Your task to perform on an android device: remove spam from my inbox in the gmail app Image 0: 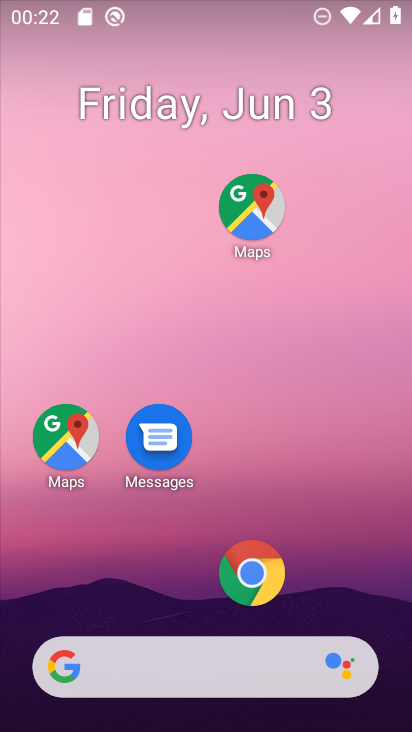
Step 0: drag from (308, 601) to (300, 160)
Your task to perform on an android device: remove spam from my inbox in the gmail app Image 1: 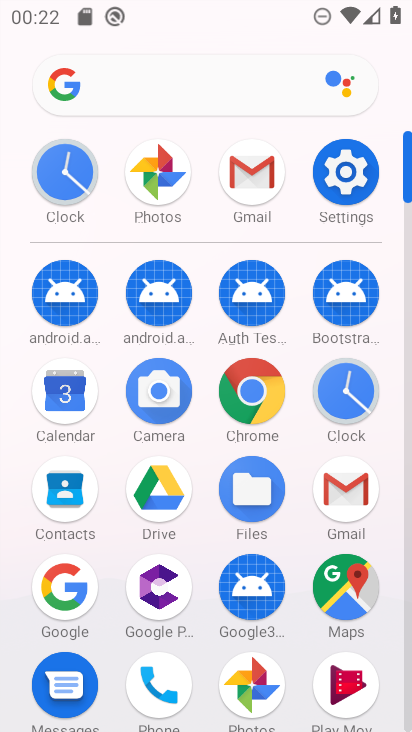
Step 1: click (336, 471)
Your task to perform on an android device: remove spam from my inbox in the gmail app Image 2: 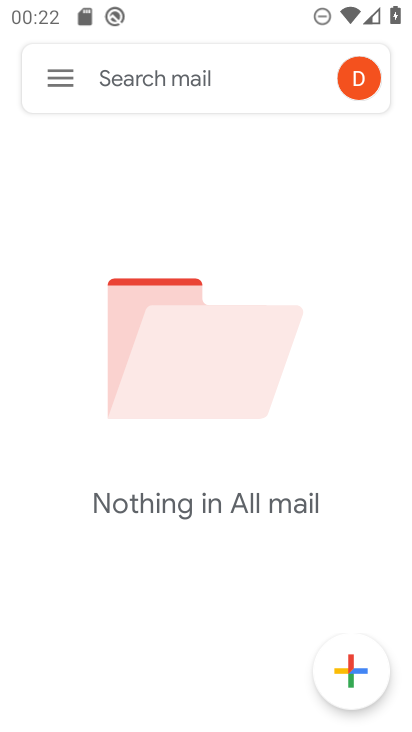
Step 2: click (58, 69)
Your task to perform on an android device: remove spam from my inbox in the gmail app Image 3: 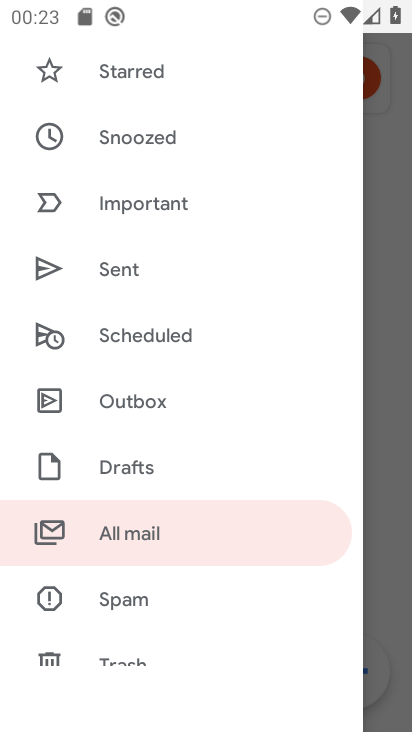
Step 3: click (126, 594)
Your task to perform on an android device: remove spam from my inbox in the gmail app Image 4: 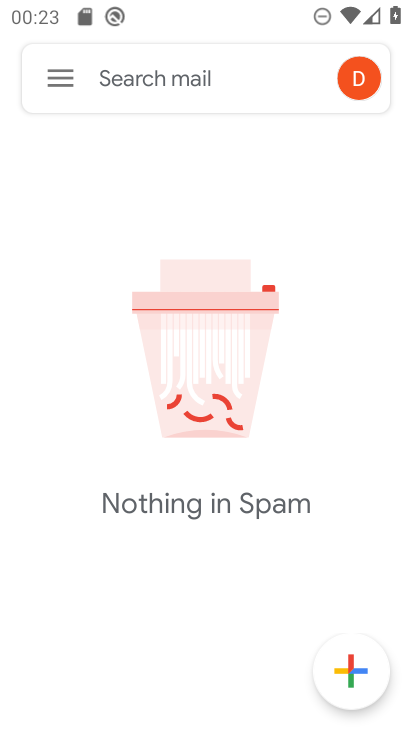
Step 4: task complete